Your task to perform on an android device: Open Google Maps Image 0: 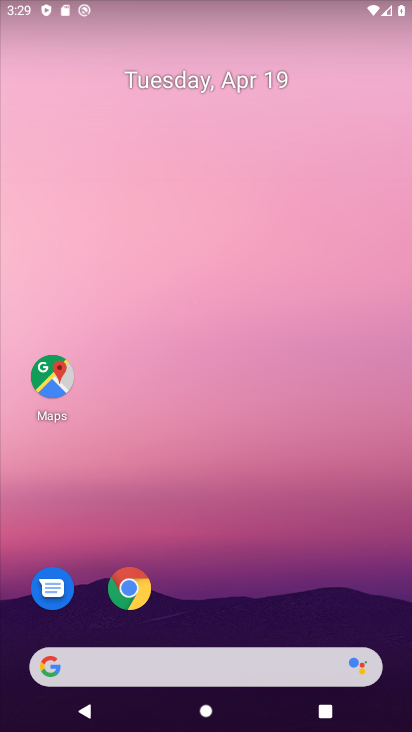
Step 0: click (53, 379)
Your task to perform on an android device: Open Google Maps Image 1: 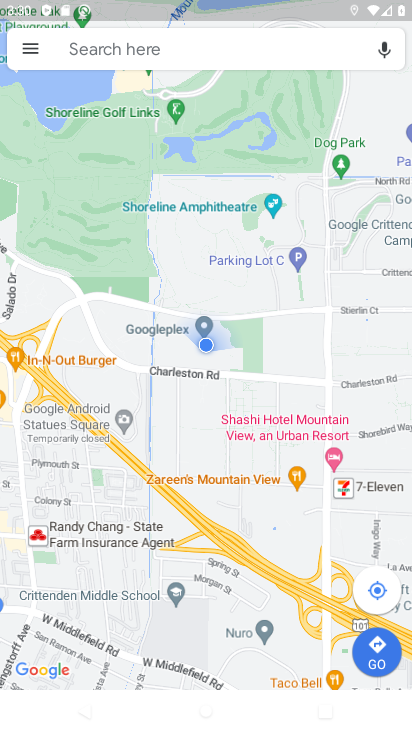
Step 1: task complete